Your task to perform on an android device: Show the shopping cart on ebay. Image 0: 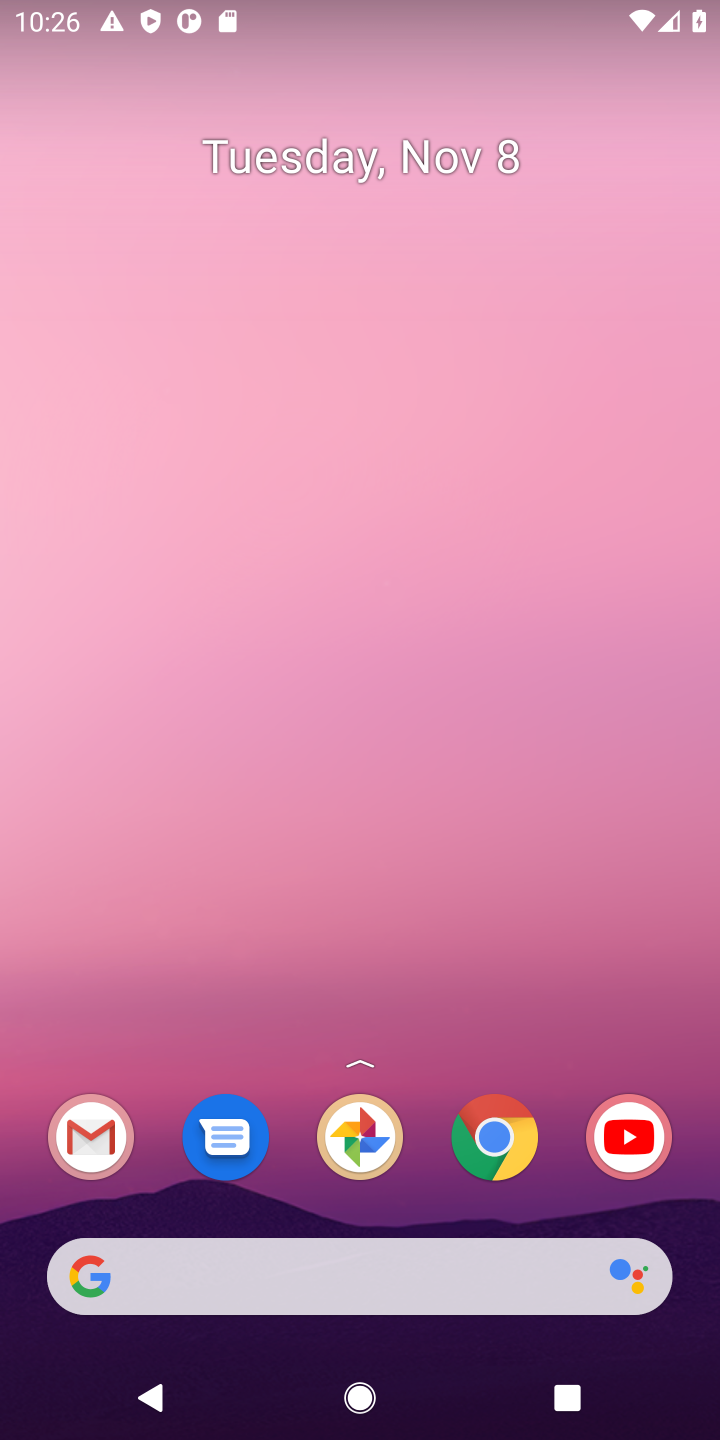
Step 0: click (492, 1134)
Your task to perform on an android device: Show the shopping cart on ebay. Image 1: 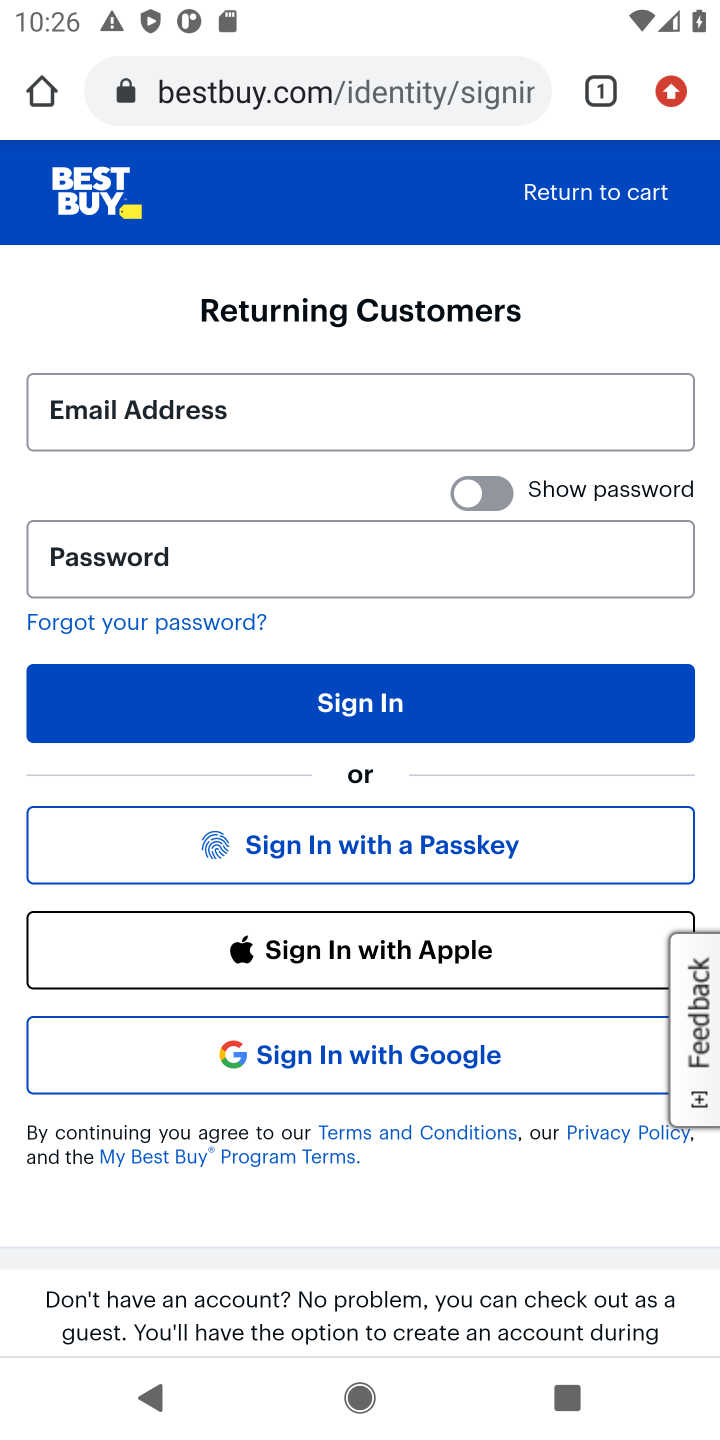
Step 1: click (616, 81)
Your task to perform on an android device: Show the shopping cart on ebay. Image 2: 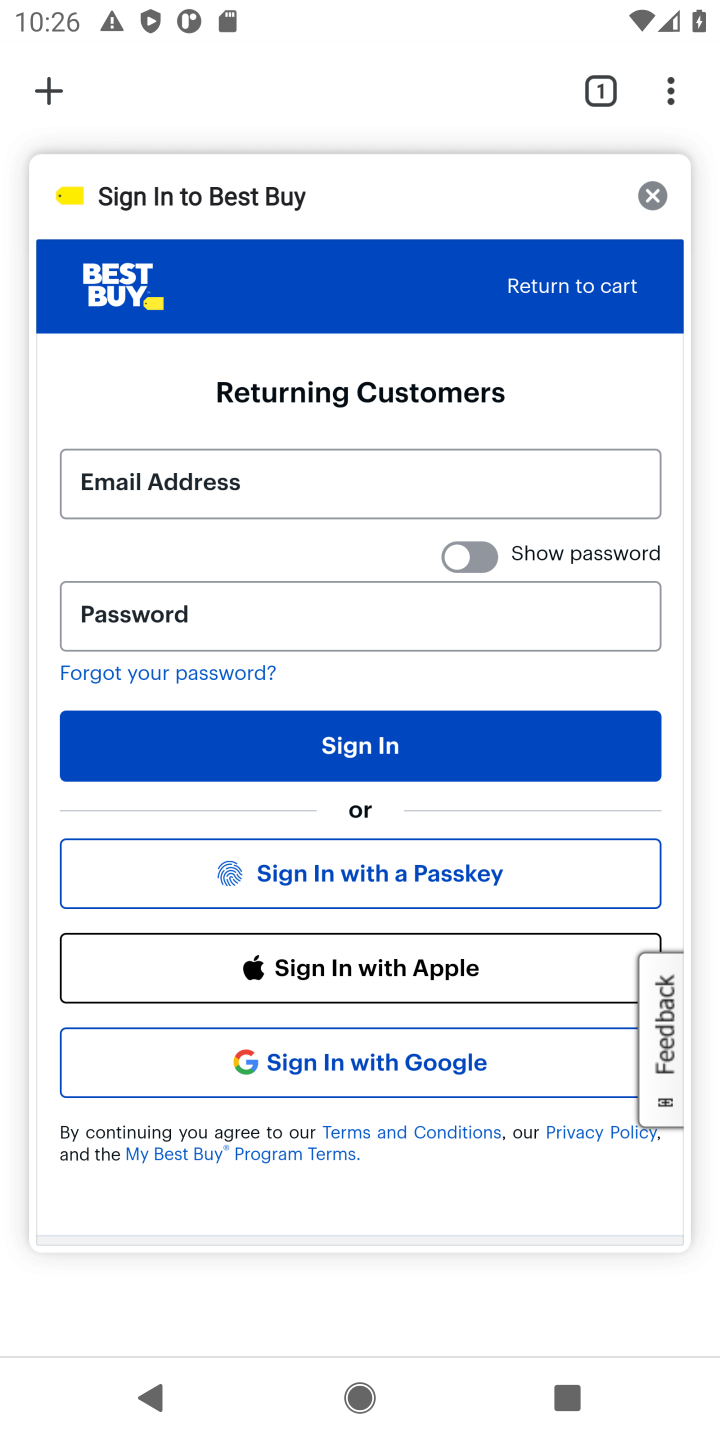
Step 2: click (48, 106)
Your task to perform on an android device: Show the shopping cart on ebay. Image 3: 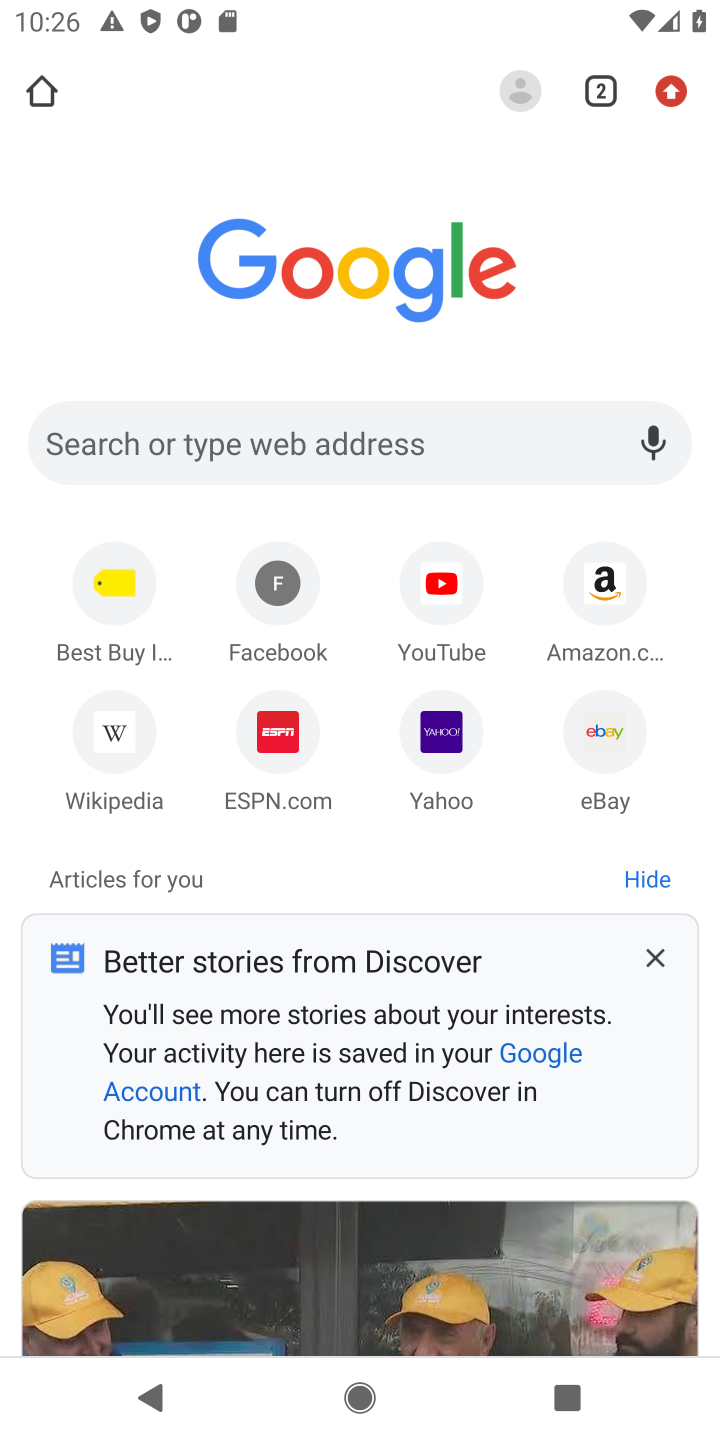
Step 3: click (594, 727)
Your task to perform on an android device: Show the shopping cart on ebay. Image 4: 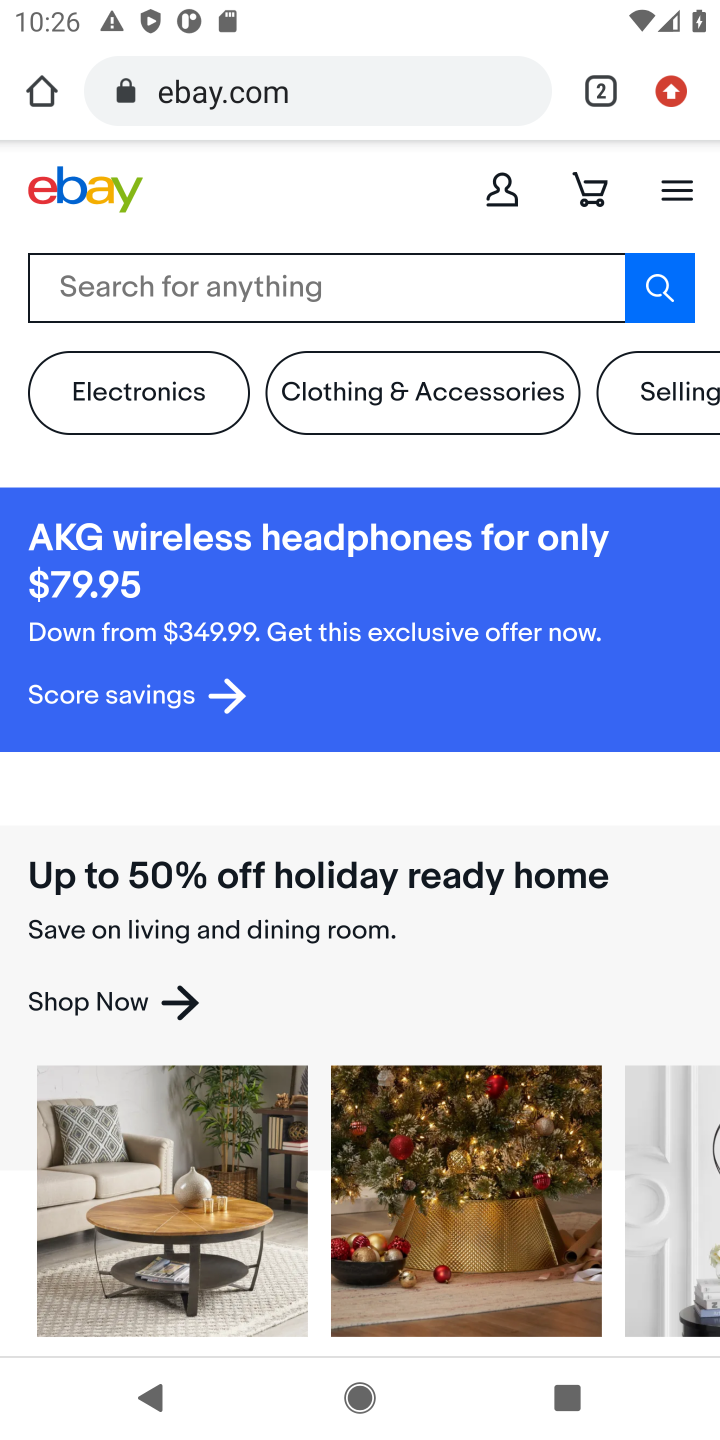
Step 4: task complete